Your task to perform on an android device: find snoozed emails in the gmail app Image 0: 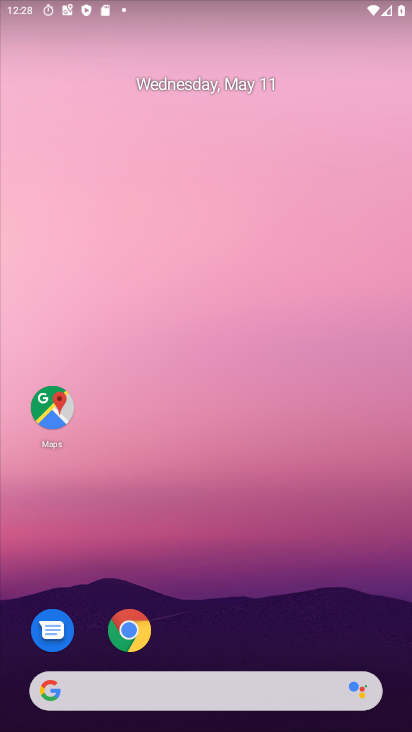
Step 0: drag from (289, 636) to (274, 107)
Your task to perform on an android device: find snoozed emails in the gmail app Image 1: 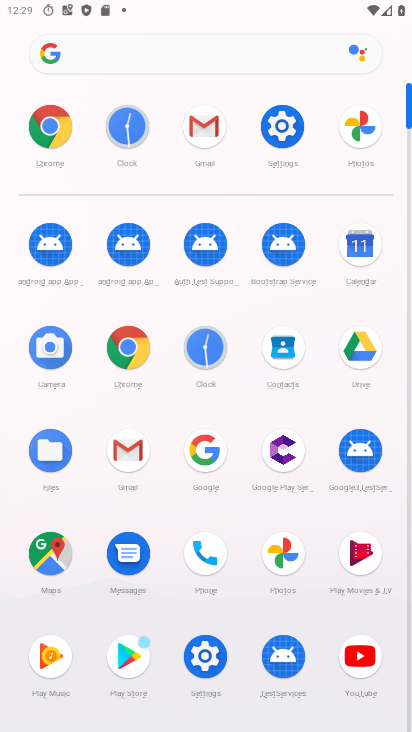
Step 1: click (130, 453)
Your task to perform on an android device: find snoozed emails in the gmail app Image 2: 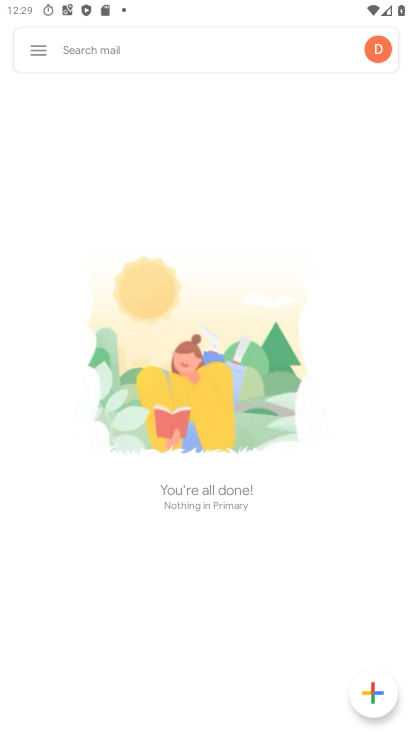
Step 2: click (43, 50)
Your task to perform on an android device: find snoozed emails in the gmail app Image 3: 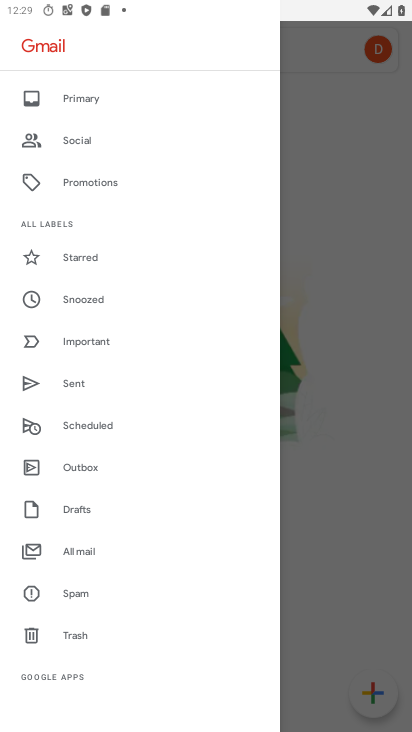
Step 3: click (95, 301)
Your task to perform on an android device: find snoozed emails in the gmail app Image 4: 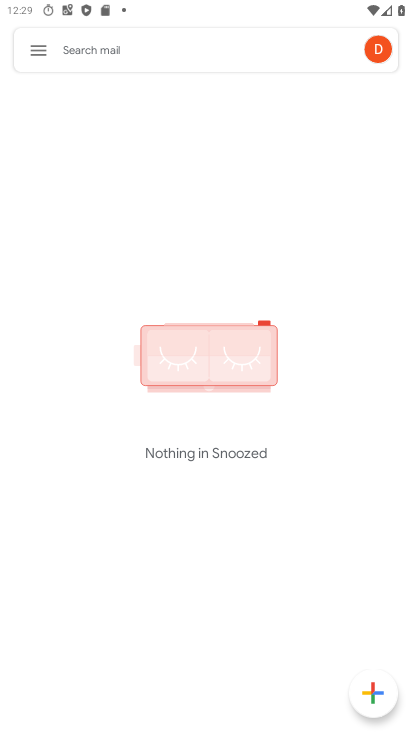
Step 4: task complete